Your task to perform on an android device: Toggle the flashlight Image 0: 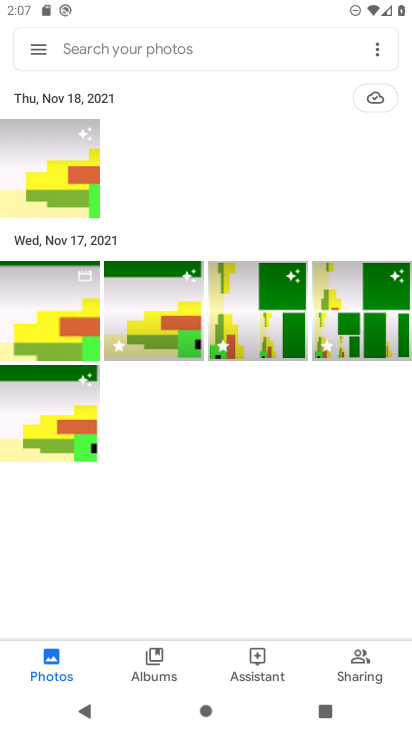
Step 0: press home button
Your task to perform on an android device: Toggle the flashlight Image 1: 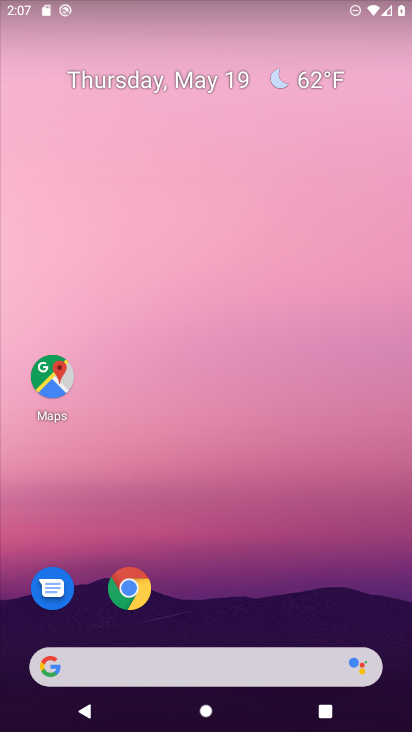
Step 1: task complete